Your task to perform on an android device: turn off notifications settings in the gmail app Image 0: 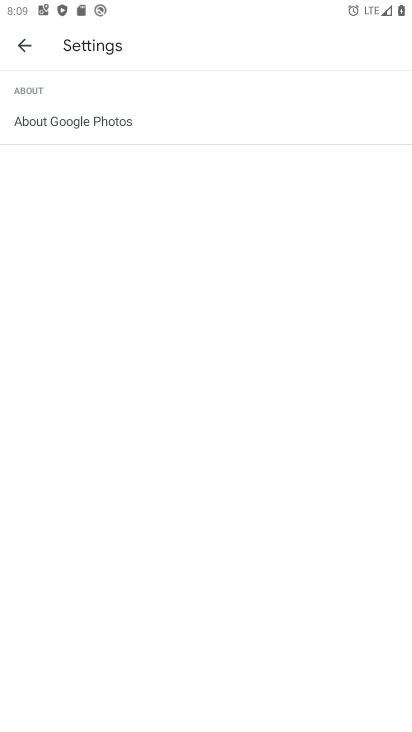
Step 0: press home button
Your task to perform on an android device: turn off notifications settings in the gmail app Image 1: 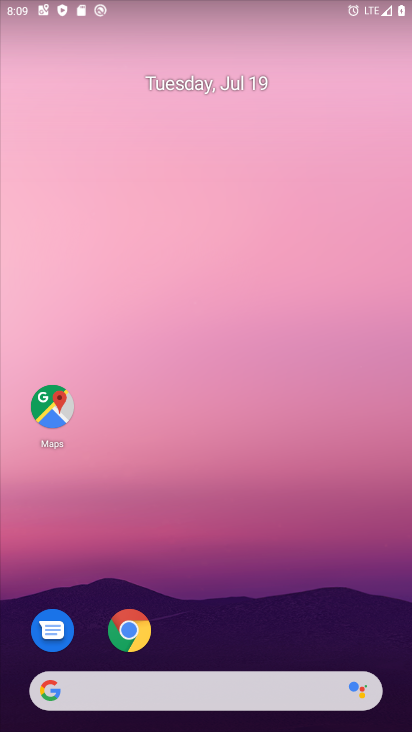
Step 1: drag from (328, 584) to (303, 126)
Your task to perform on an android device: turn off notifications settings in the gmail app Image 2: 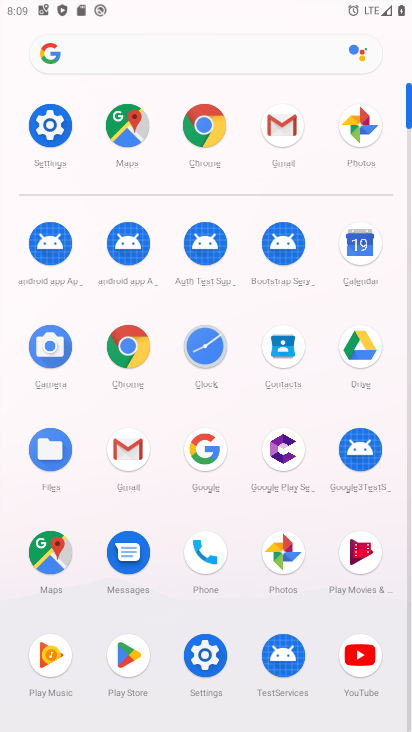
Step 2: click (286, 114)
Your task to perform on an android device: turn off notifications settings in the gmail app Image 3: 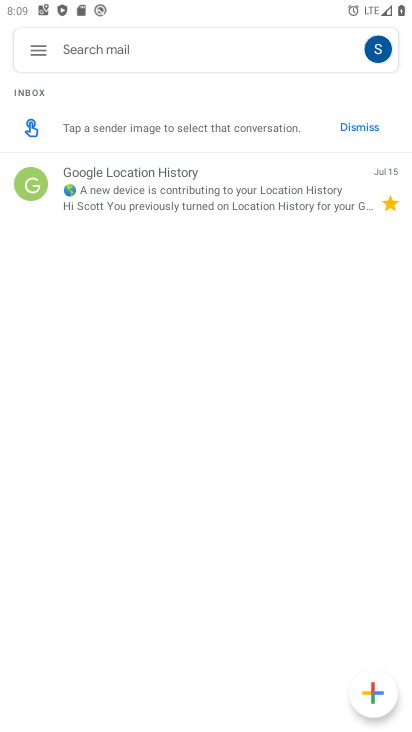
Step 3: click (24, 40)
Your task to perform on an android device: turn off notifications settings in the gmail app Image 4: 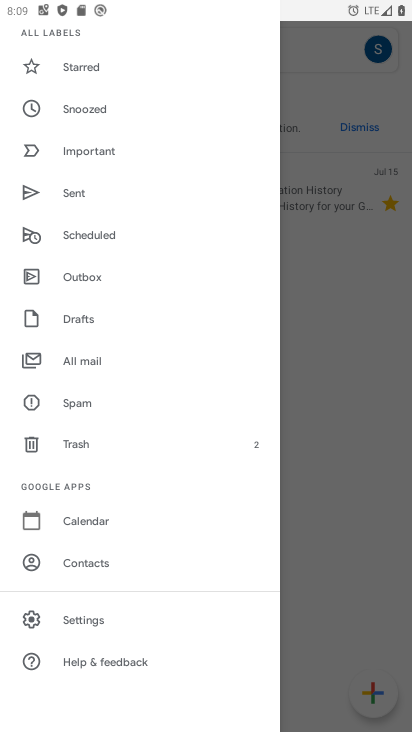
Step 4: click (102, 617)
Your task to perform on an android device: turn off notifications settings in the gmail app Image 5: 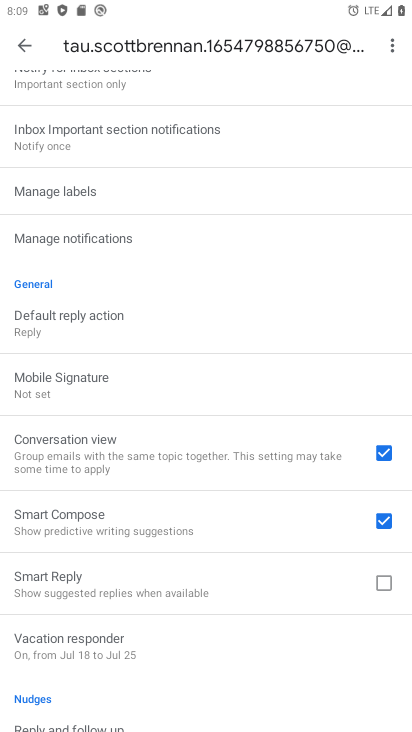
Step 5: click (126, 243)
Your task to perform on an android device: turn off notifications settings in the gmail app Image 6: 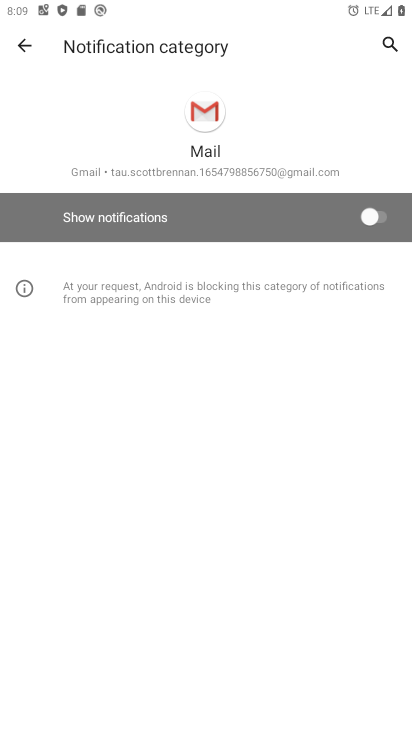
Step 6: task complete